Your task to perform on an android device: toggle airplane mode Image 0: 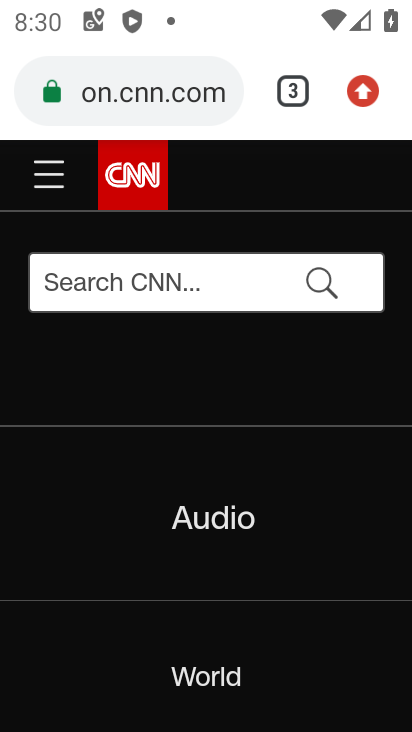
Step 0: press back button
Your task to perform on an android device: toggle airplane mode Image 1: 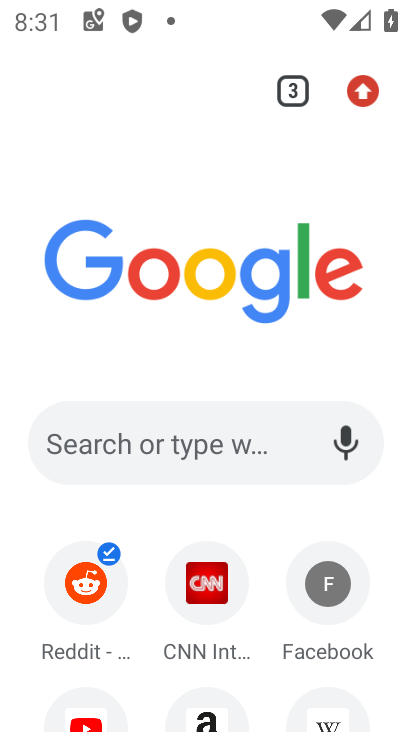
Step 1: press back button
Your task to perform on an android device: toggle airplane mode Image 2: 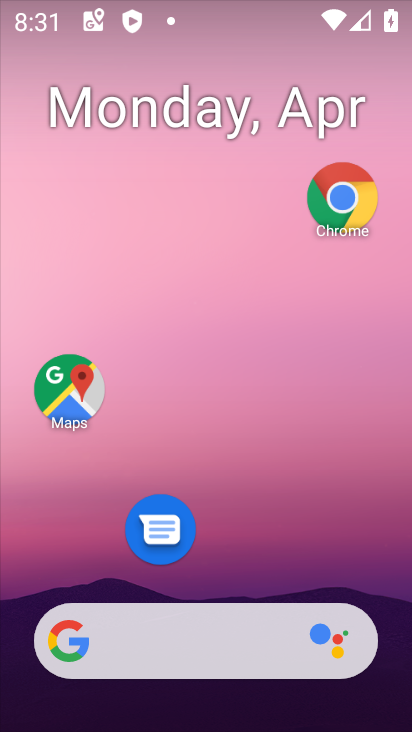
Step 2: drag from (290, 12) to (226, 652)
Your task to perform on an android device: toggle airplane mode Image 3: 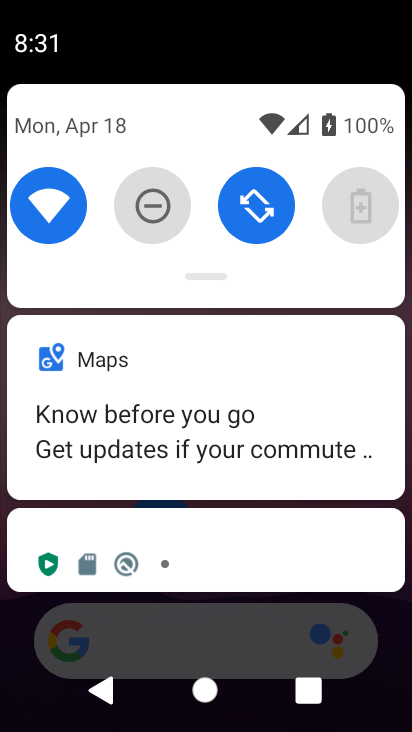
Step 3: drag from (195, 261) to (191, 571)
Your task to perform on an android device: toggle airplane mode Image 4: 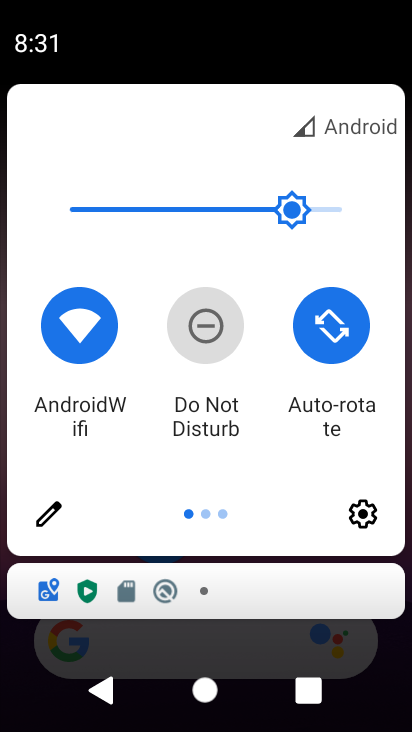
Step 4: drag from (345, 331) to (7, 315)
Your task to perform on an android device: toggle airplane mode Image 5: 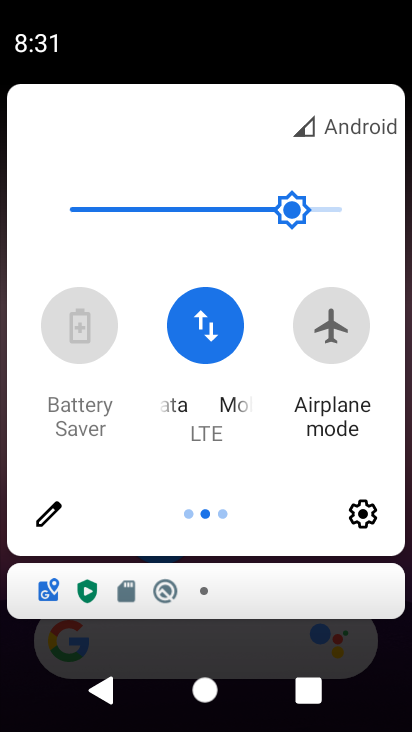
Step 5: click (329, 316)
Your task to perform on an android device: toggle airplane mode Image 6: 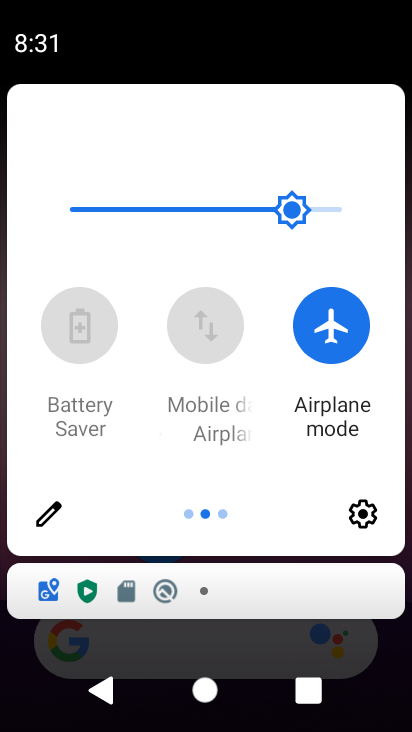
Step 6: task complete